Your task to perform on an android device: star an email in the gmail app Image 0: 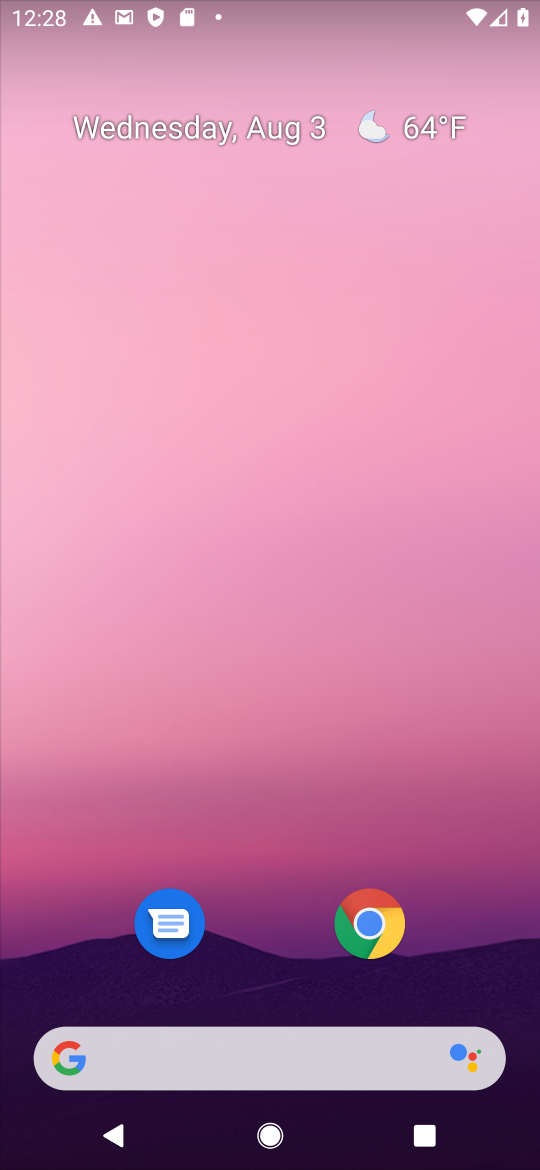
Step 0: click (341, 800)
Your task to perform on an android device: star an email in the gmail app Image 1: 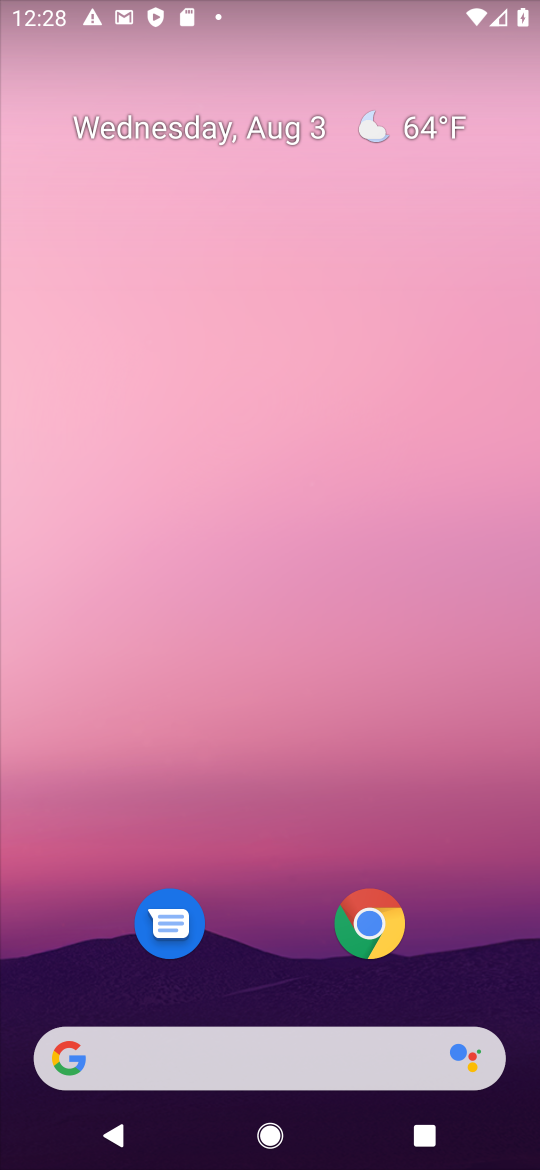
Step 1: drag from (279, 820) to (313, 225)
Your task to perform on an android device: star an email in the gmail app Image 2: 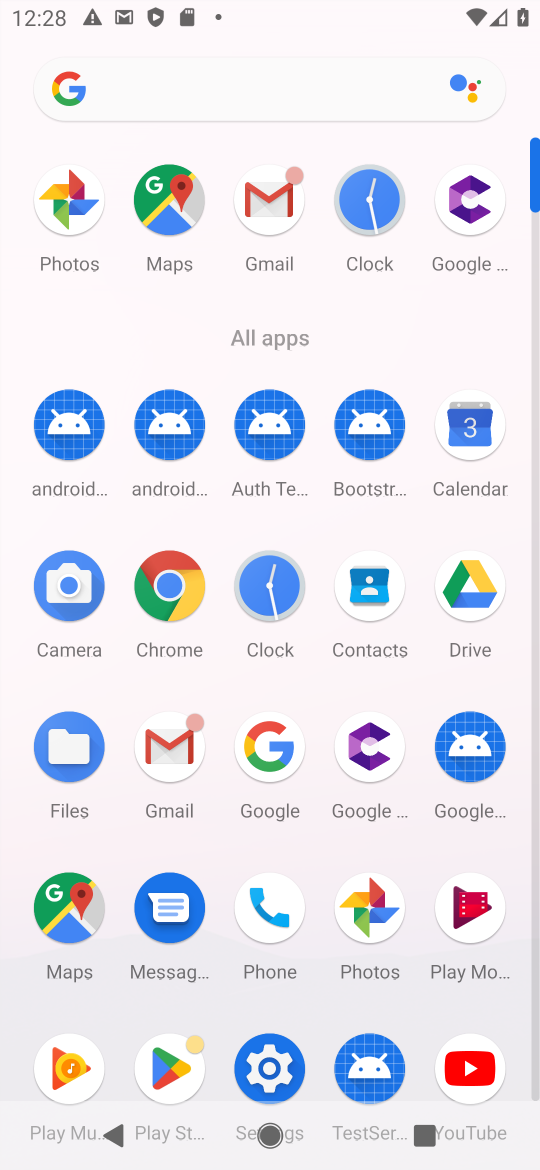
Step 2: click (272, 1057)
Your task to perform on an android device: star an email in the gmail app Image 3: 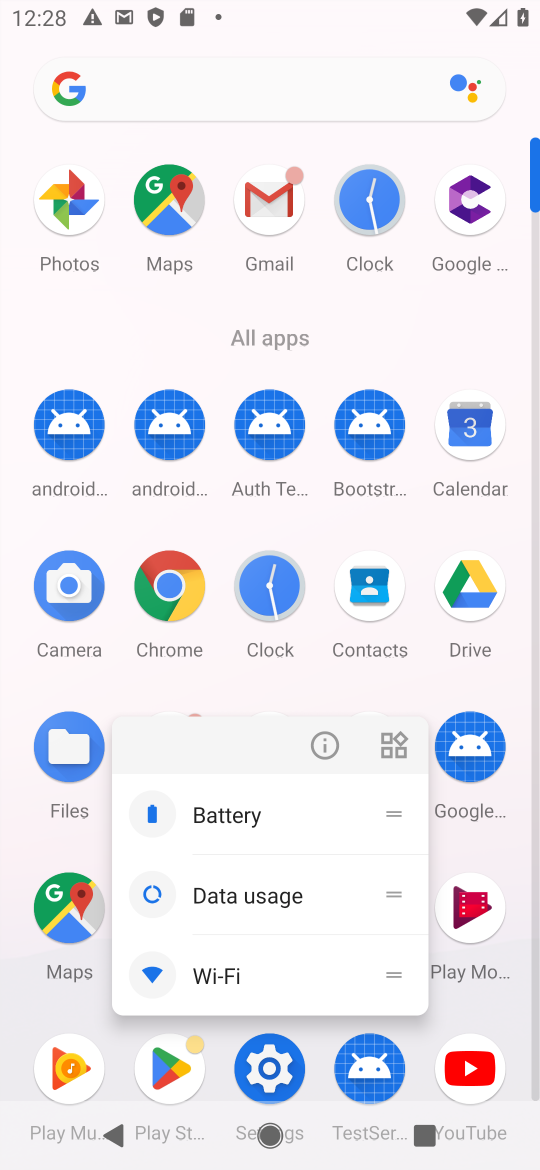
Step 3: click (315, 747)
Your task to perform on an android device: star an email in the gmail app Image 4: 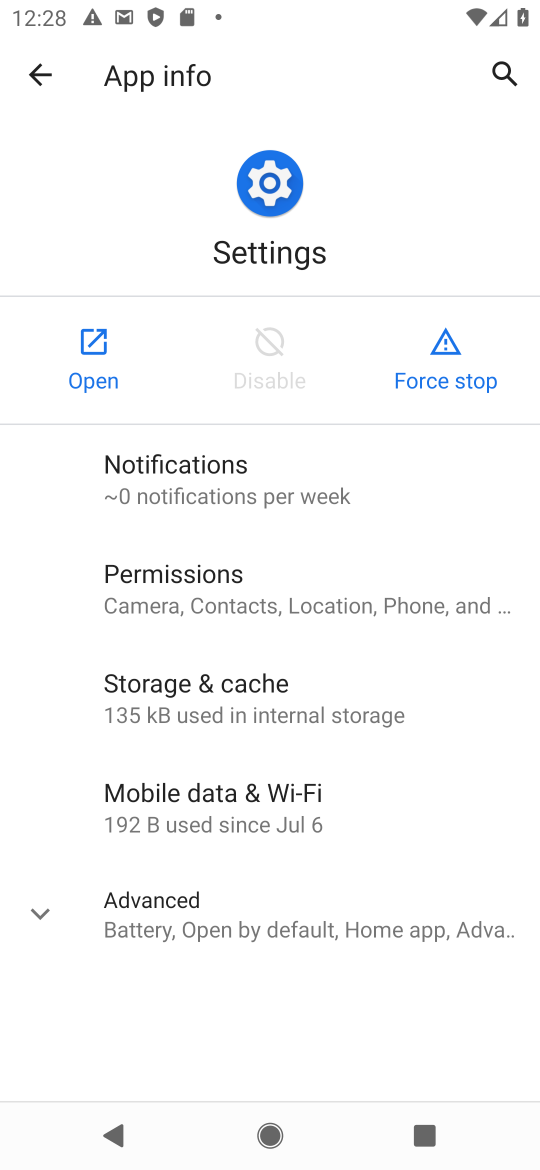
Step 4: click (72, 362)
Your task to perform on an android device: star an email in the gmail app Image 5: 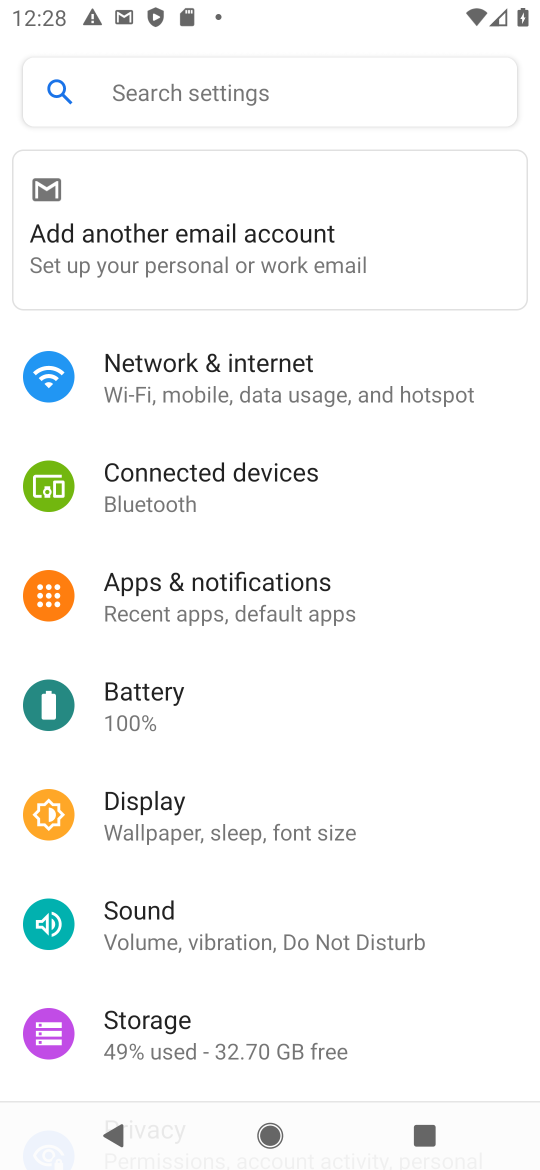
Step 5: drag from (276, 432) to (366, 381)
Your task to perform on an android device: star an email in the gmail app Image 6: 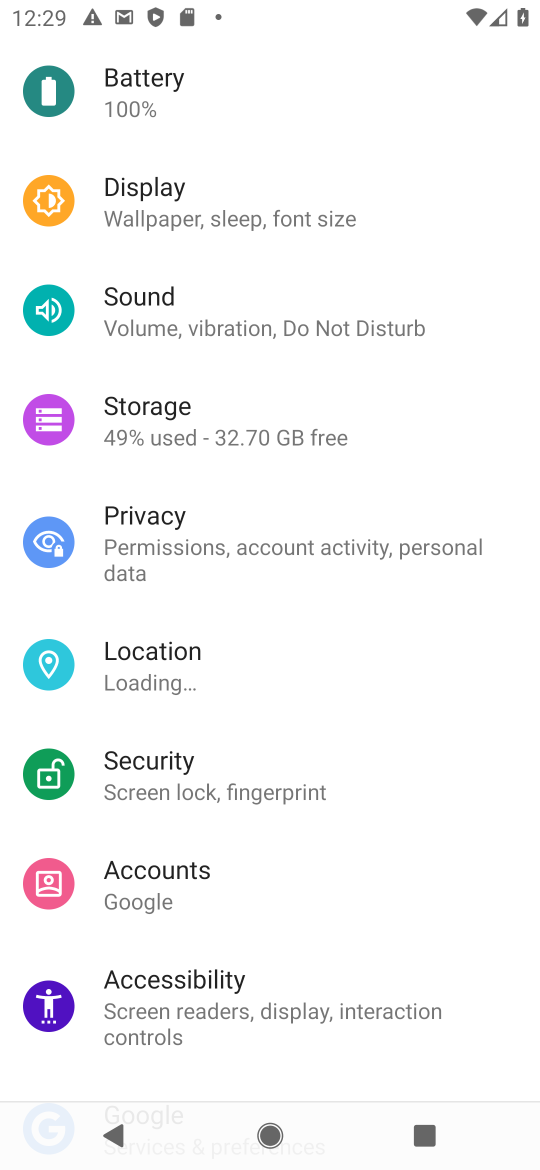
Step 6: drag from (281, 589) to (322, 1135)
Your task to perform on an android device: star an email in the gmail app Image 7: 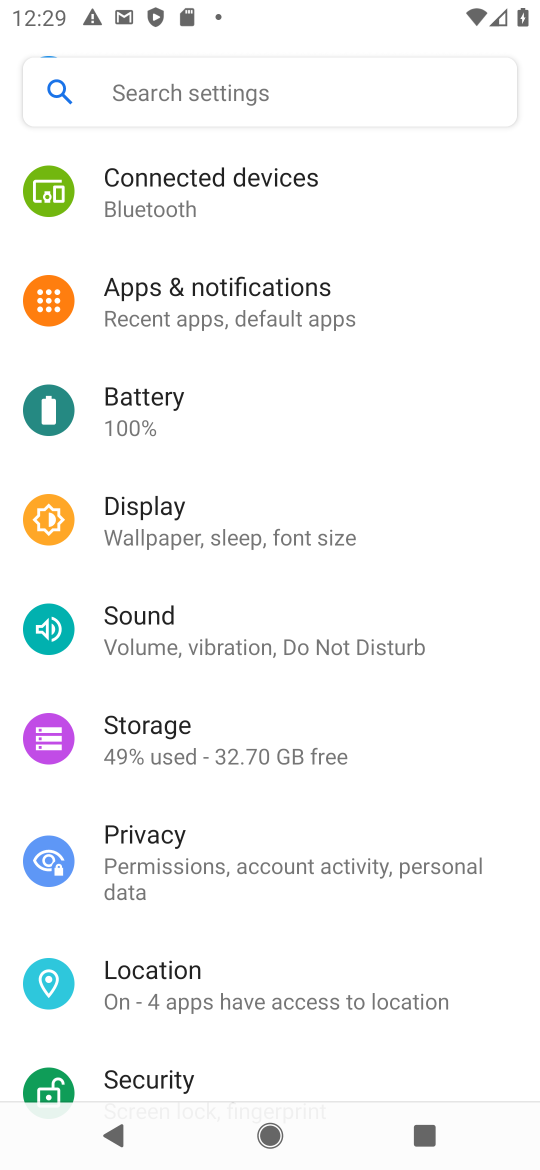
Step 7: press home button
Your task to perform on an android device: star an email in the gmail app Image 8: 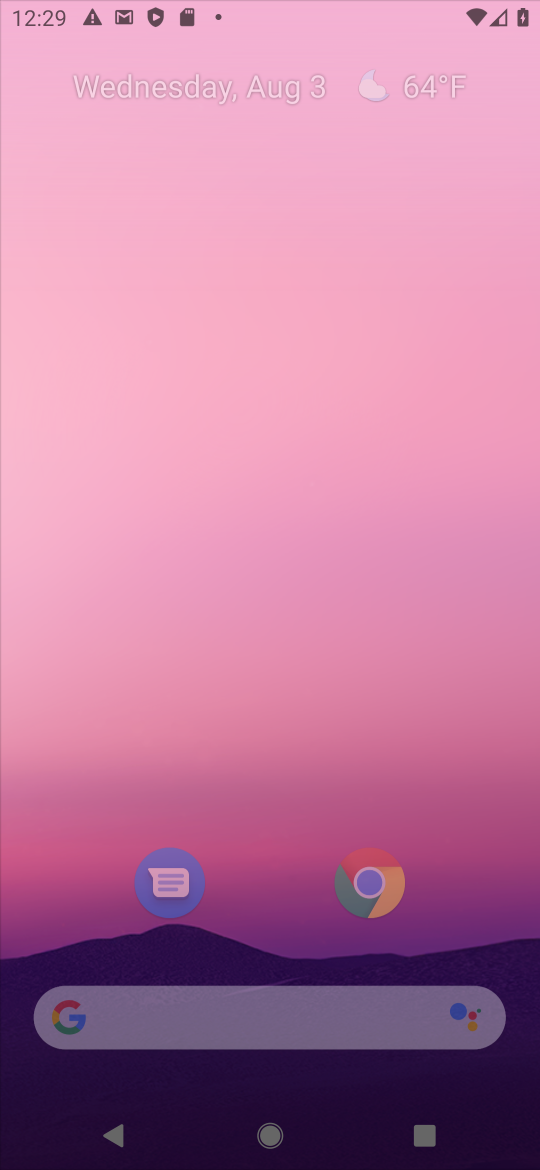
Step 8: drag from (278, 861) to (295, 253)
Your task to perform on an android device: star an email in the gmail app Image 9: 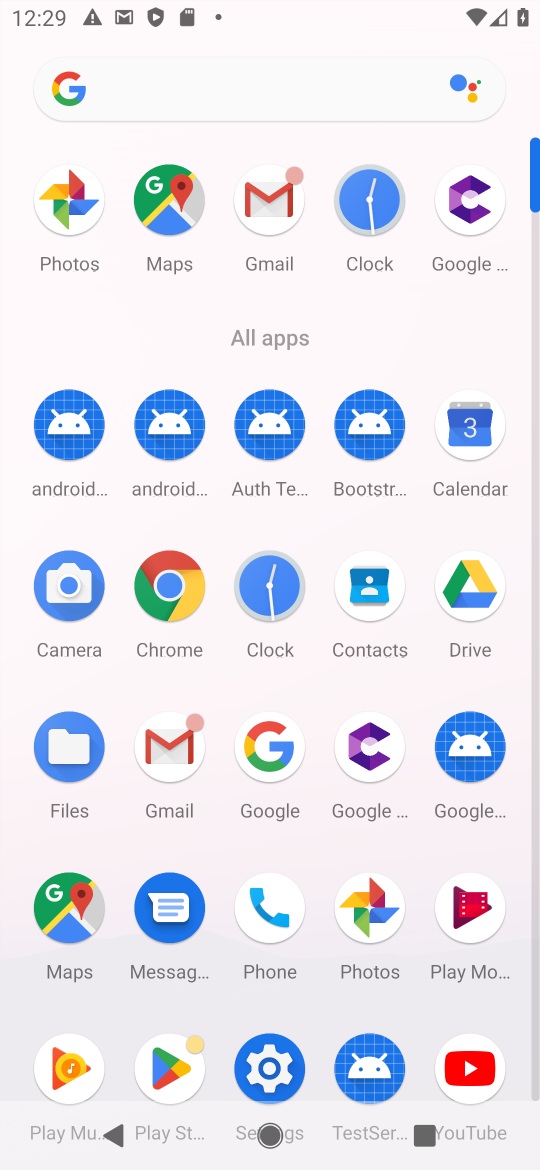
Step 9: click (175, 740)
Your task to perform on an android device: star an email in the gmail app Image 10: 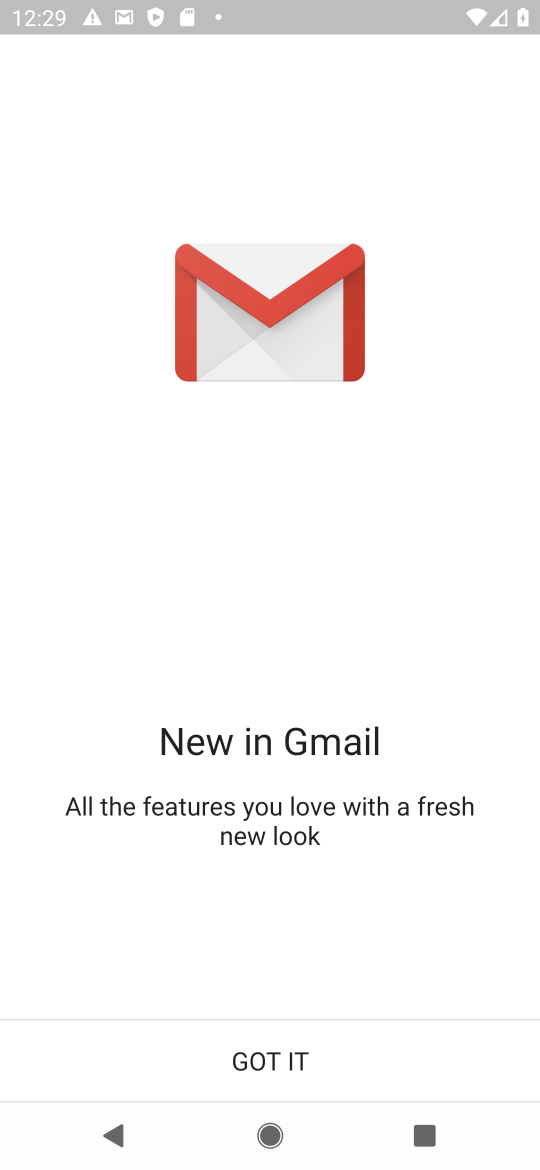
Step 10: click (320, 1054)
Your task to perform on an android device: star an email in the gmail app Image 11: 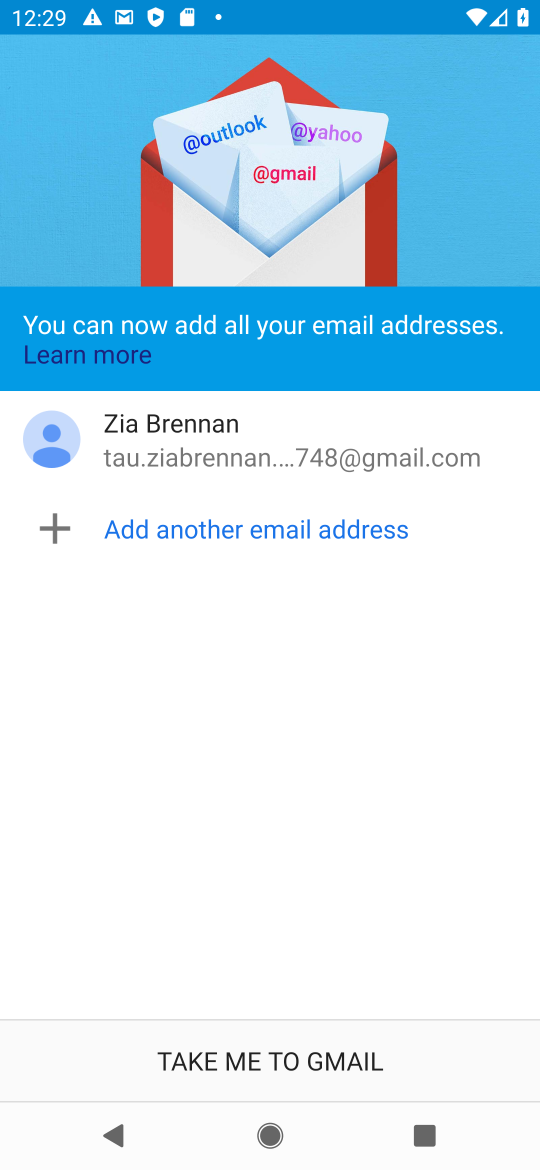
Step 11: click (264, 1050)
Your task to perform on an android device: star an email in the gmail app Image 12: 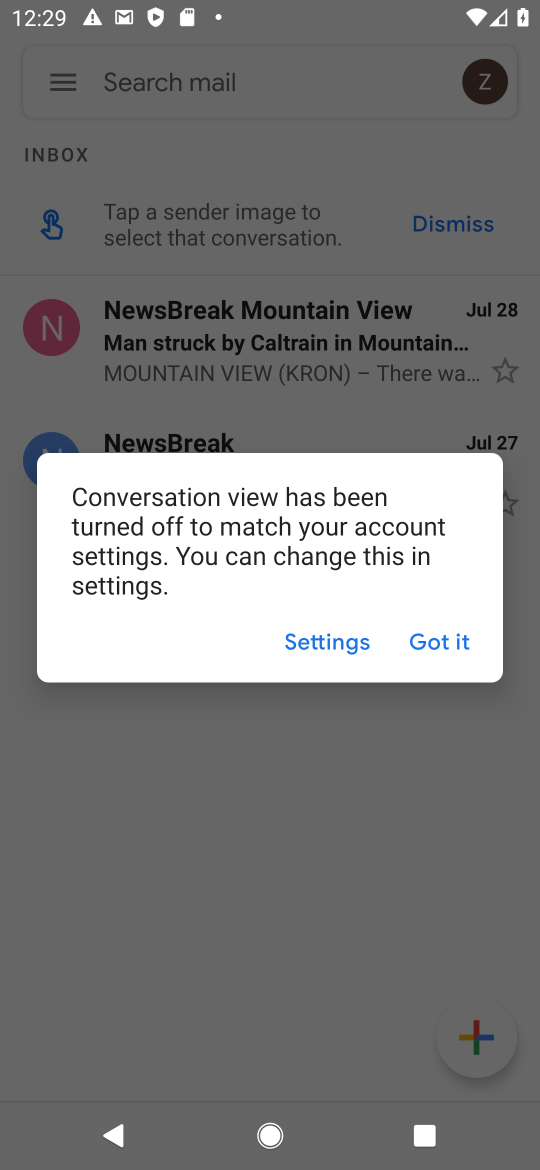
Step 12: click (445, 625)
Your task to perform on an android device: star an email in the gmail app Image 13: 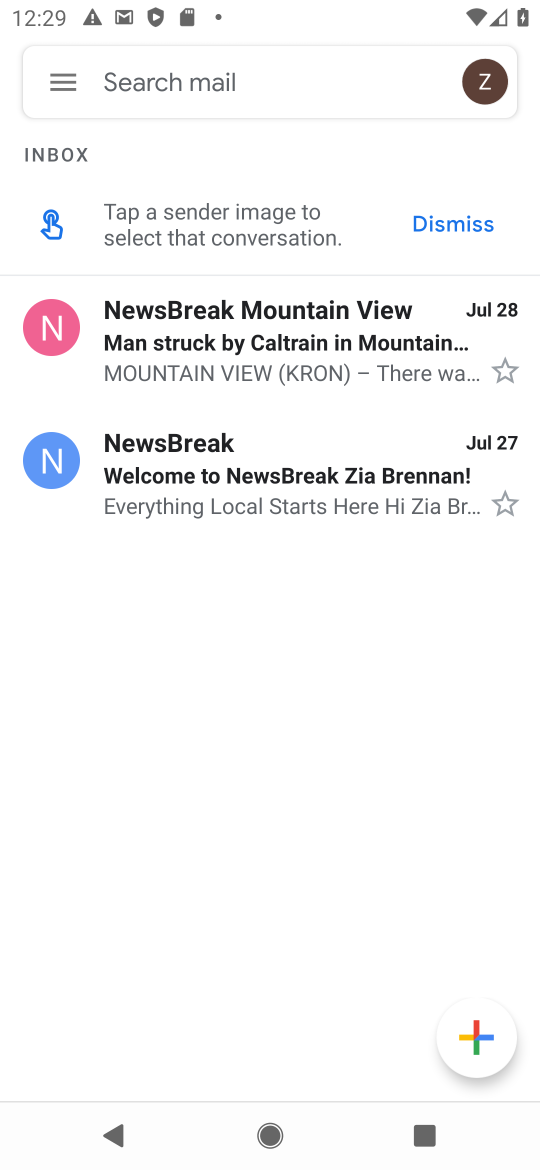
Step 13: click (508, 363)
Your task to perform on an android device: star an email in the gmail app Image 14: 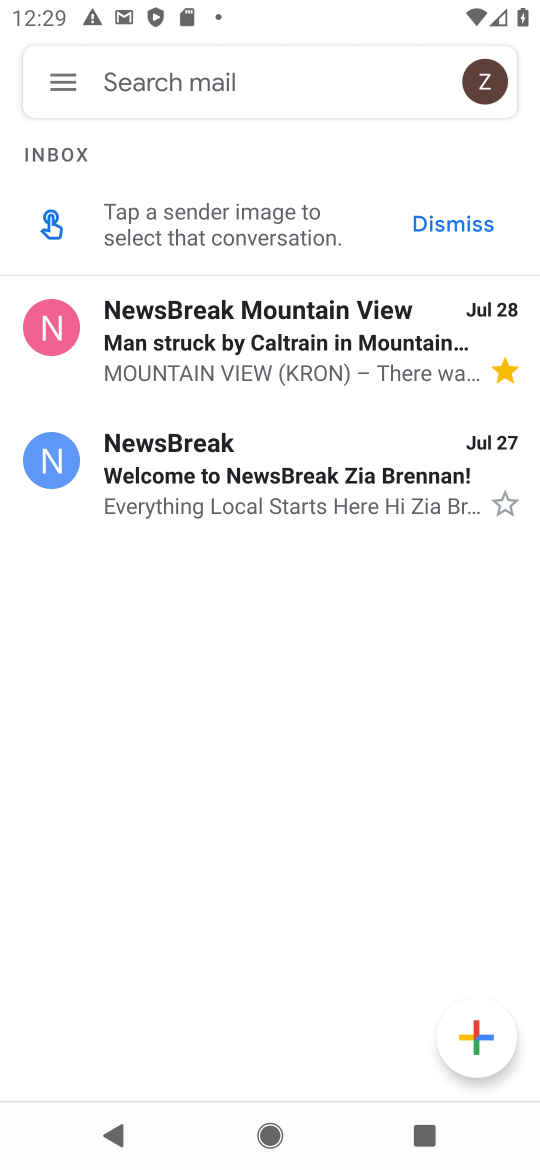
Step 14: task complete